Your task to perform on an android device: Open Google Image 0: 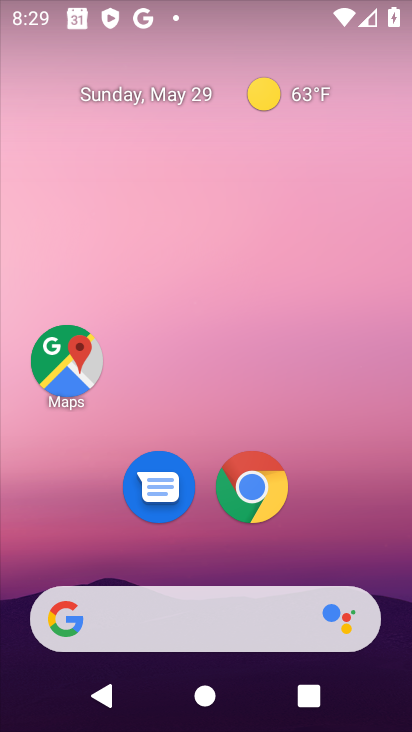
Step 0: click (257, 487)
Your task to perform on an android device: Open Google Image 1: 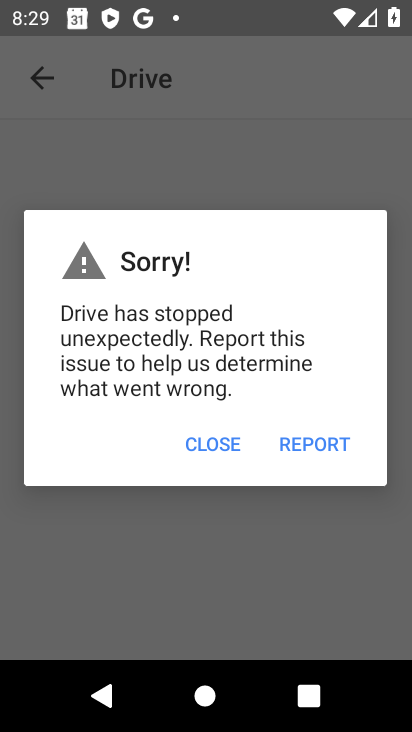
Step 1: press home button
Your task to perform on an android device: Open Google Image 2: 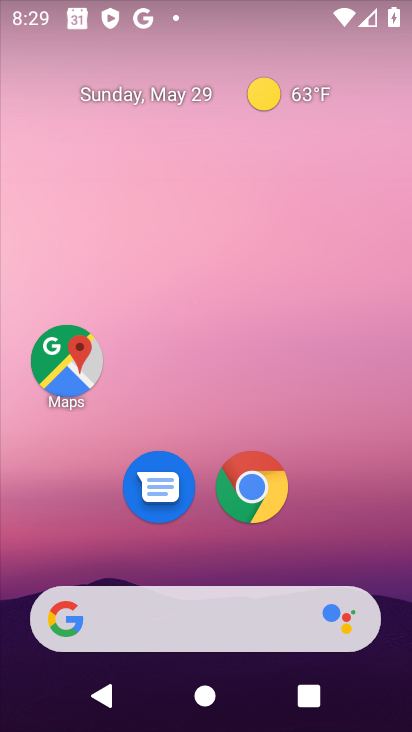
Step 2: drag from (321, 560) to (251, 23)
Your task to perform on an android device: Open Google Image 3: 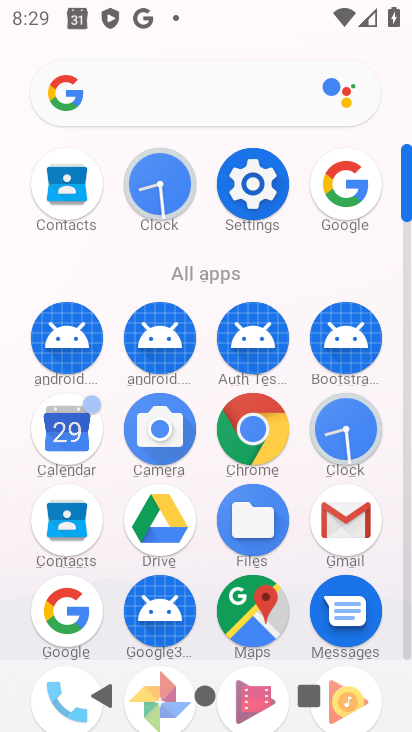
Step 3: click (339, 183)
Your task to perform on an android device: Open Google Image 4: 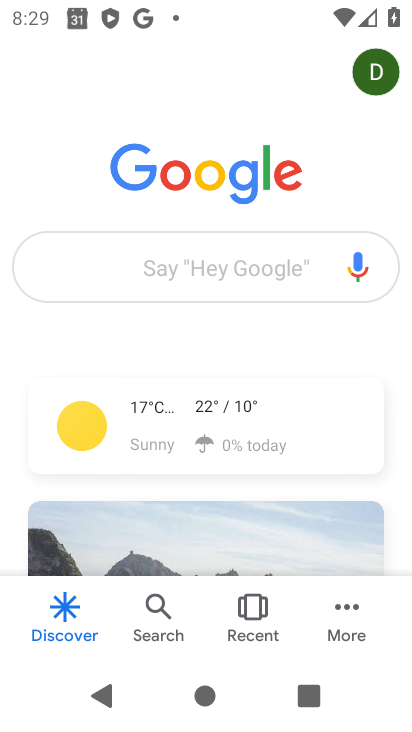
Step 4: task complete